Your task to perform on an android device: Open Youtube and go to "Your channel" Image 0: 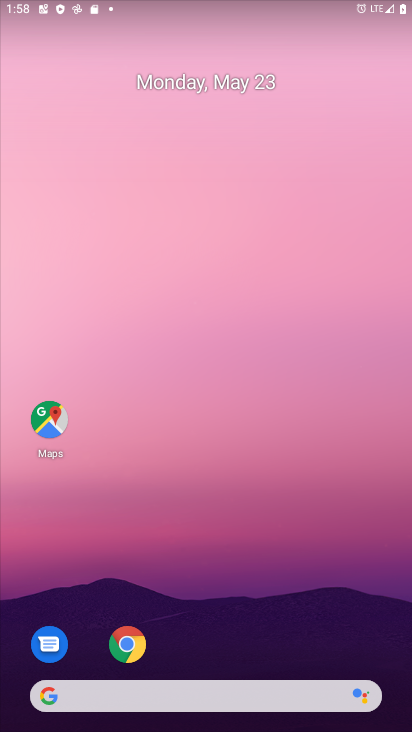
Step 0: drag from (268, 634) to (249, 33)
Your task to perform on an android device: Open Youtube and go to "Your channel" Image 1: 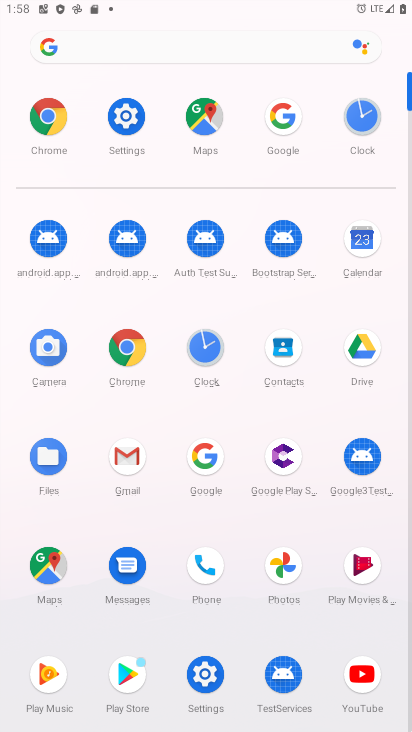
Step 1: click (371, 663)
Your task to perform on an android device: Open Youtube and go to "Your channel" Image 2: 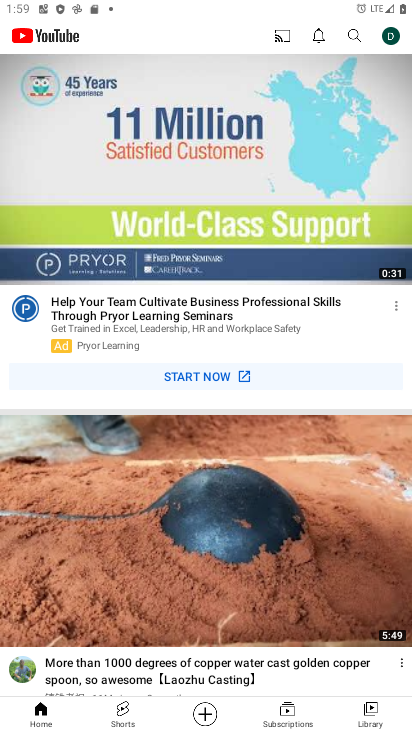
Step 2: click (392, 25)
Your task to perform on an android device: Open Youtube and go to "Your channel" Image 3: 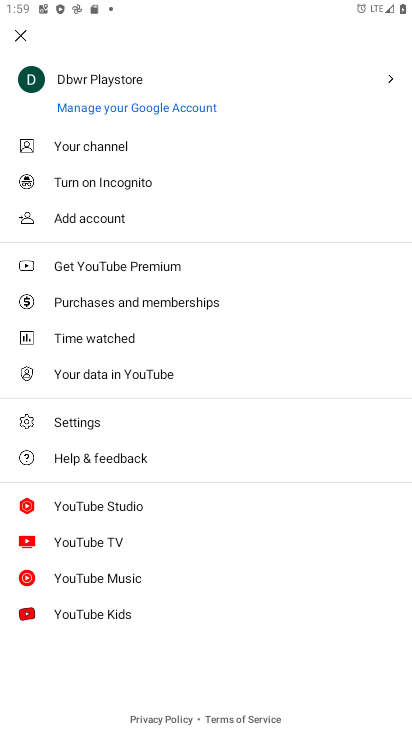
Step 3: click (94, 150)
Your task to perform on an android device: Open Youtube and go to "Your channel" Image 4: 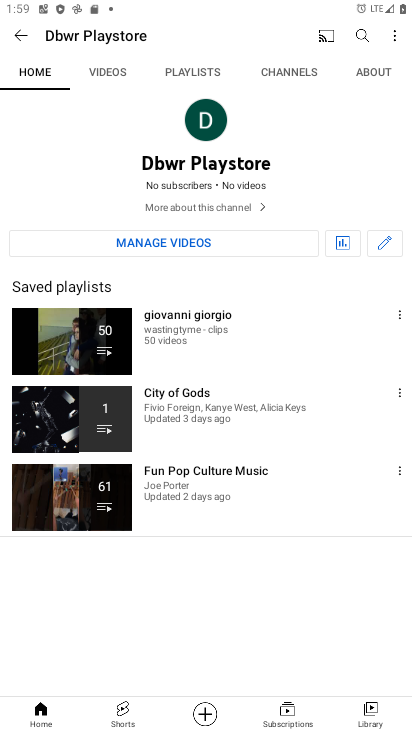
Step 4: task complete